Your task to perform on an android device: change alarm snooze length Image 0: 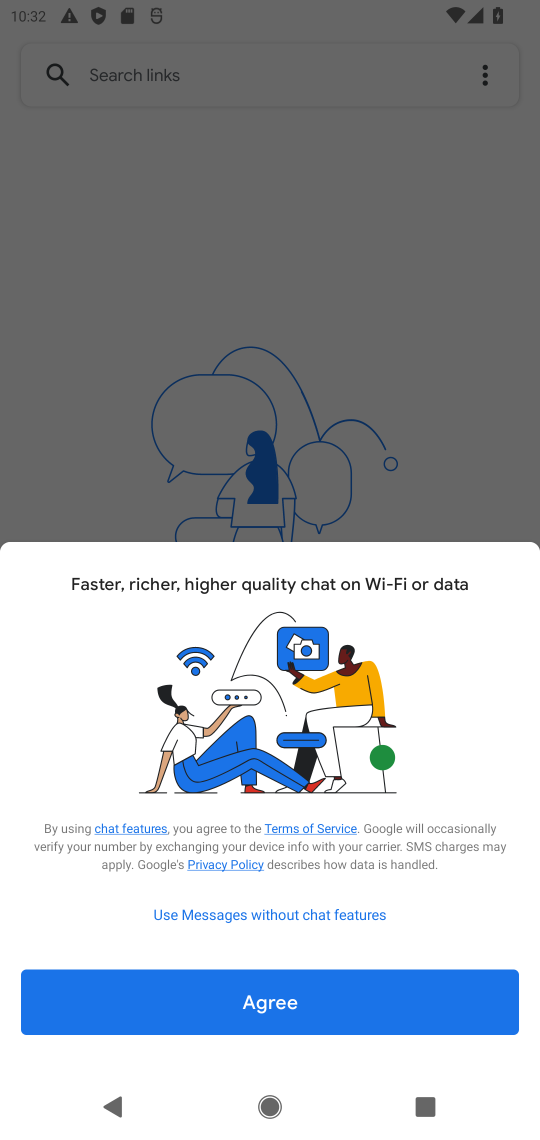
Step 0: press back button
Your task to perform on an android device: change alarm snooze length Image 1: 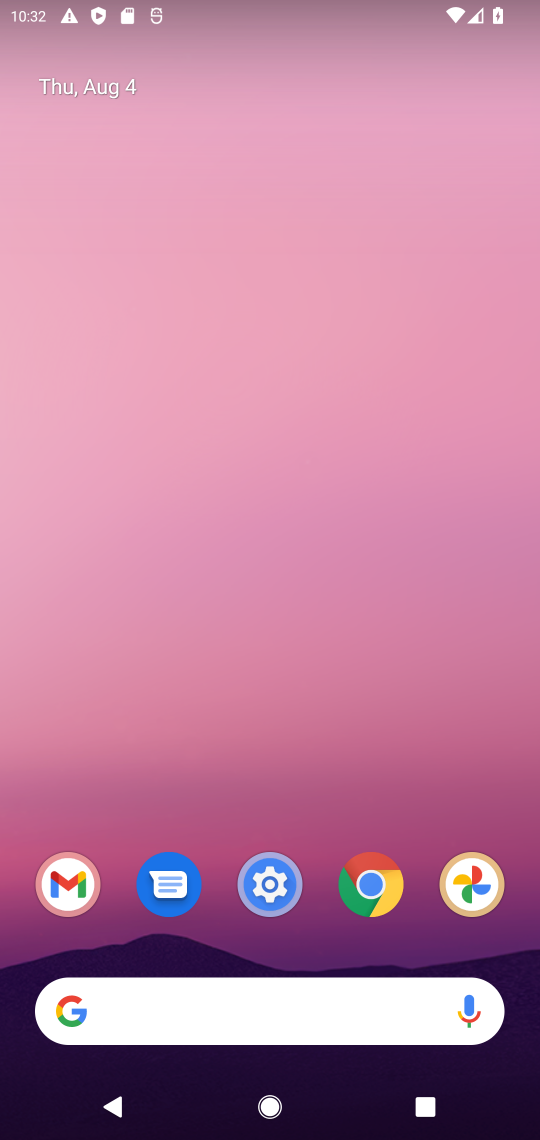
Step 1: drag from (297, 994) to (363, 90)
Your task to perform on an android device: change alarm snooze length Image 2: 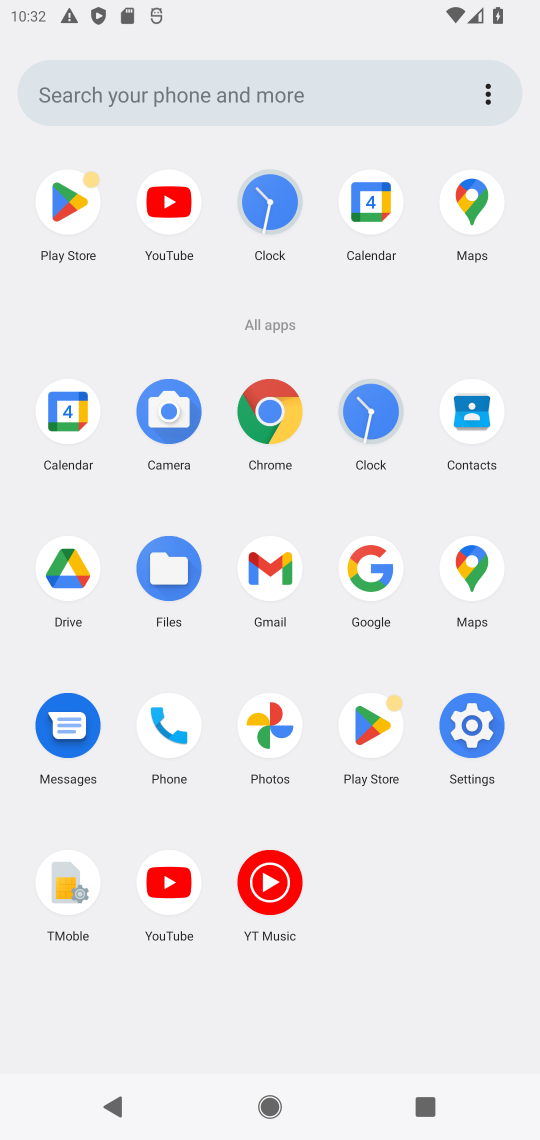
Step 2: click (373, 411)
Your task to perform on an android device: change alarm snooze length Image 3: 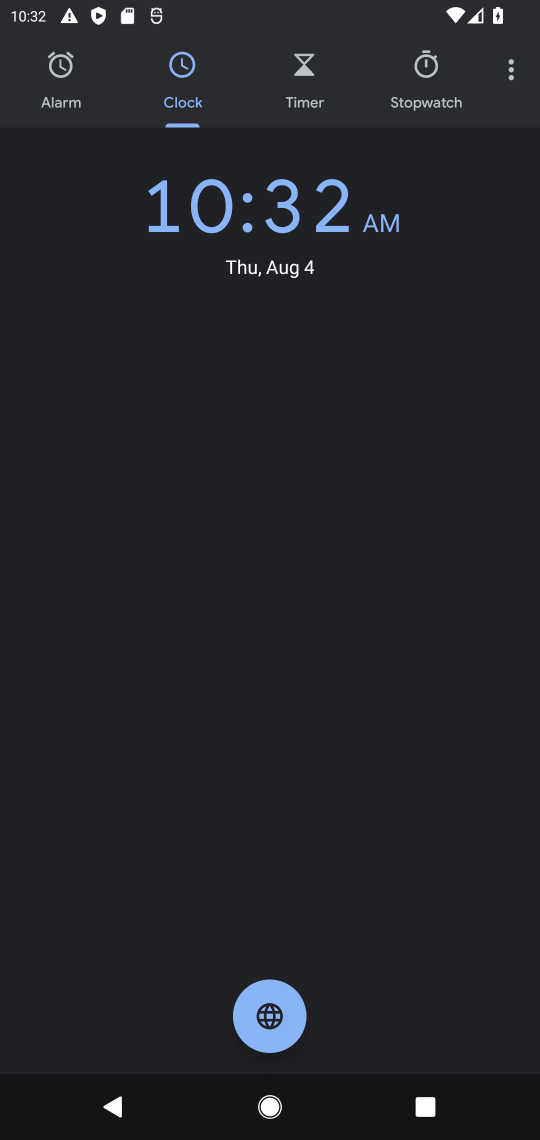
Step 3: click (422, 411)
Your task to perform on an android device: change alarm snooze length Image 4: 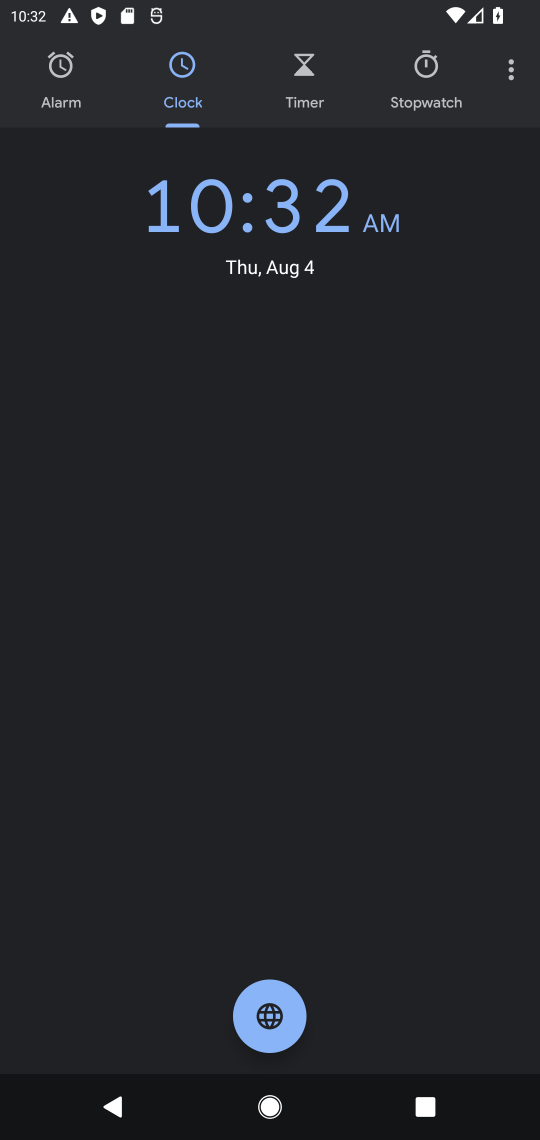
Step 4: click (73, 88)
Your task to perform on an android device: change alarm snooze length Image 5: 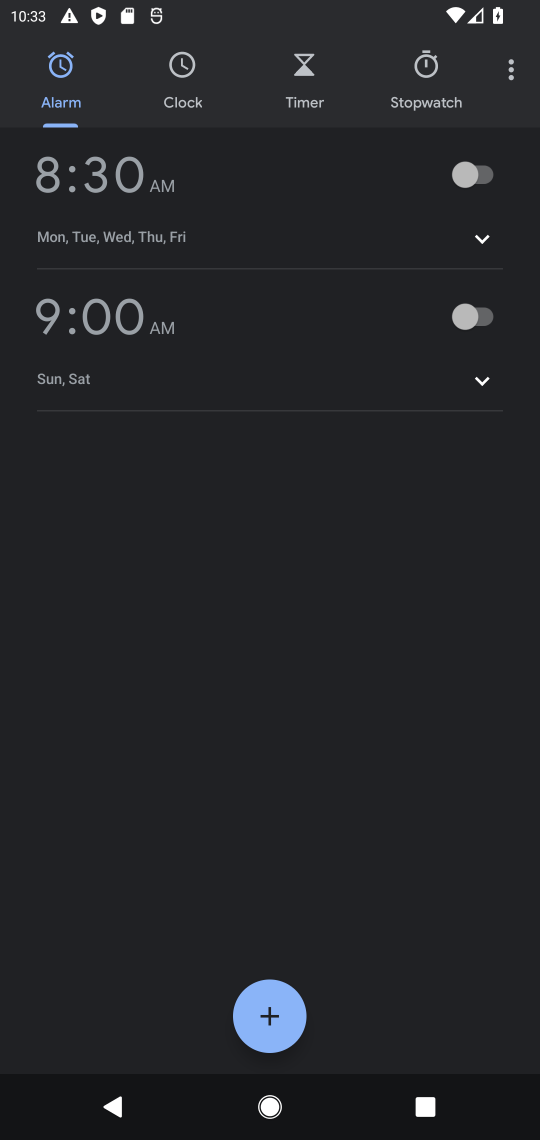
Step 5: click (499, 69)
Your task to perform on an android device: change alarm snooze length Image 6: 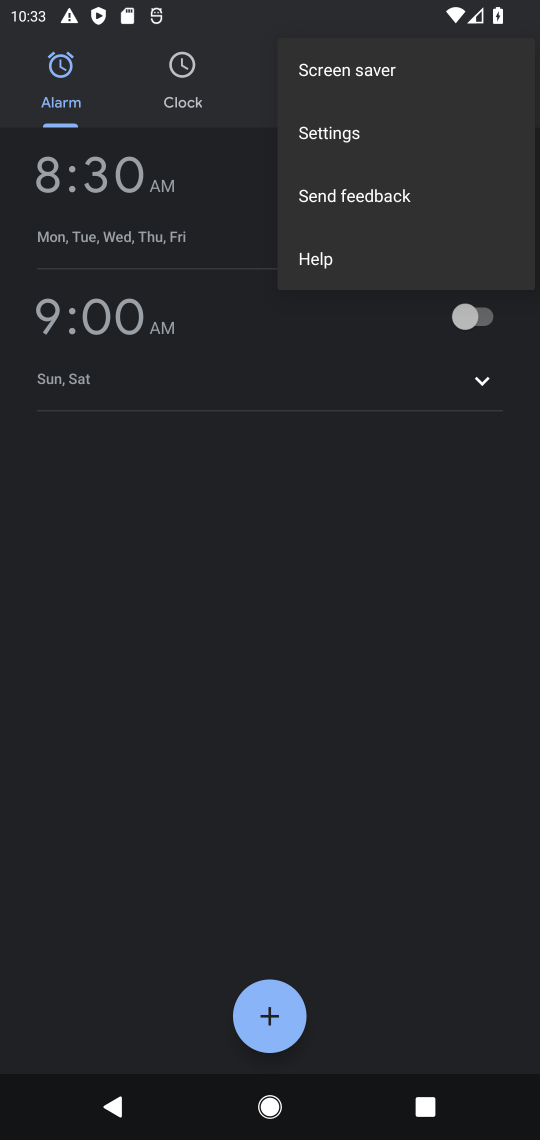
Step 6: click (335, 138)
Your task to perform on an android device: change alarm snooze length Image 7: 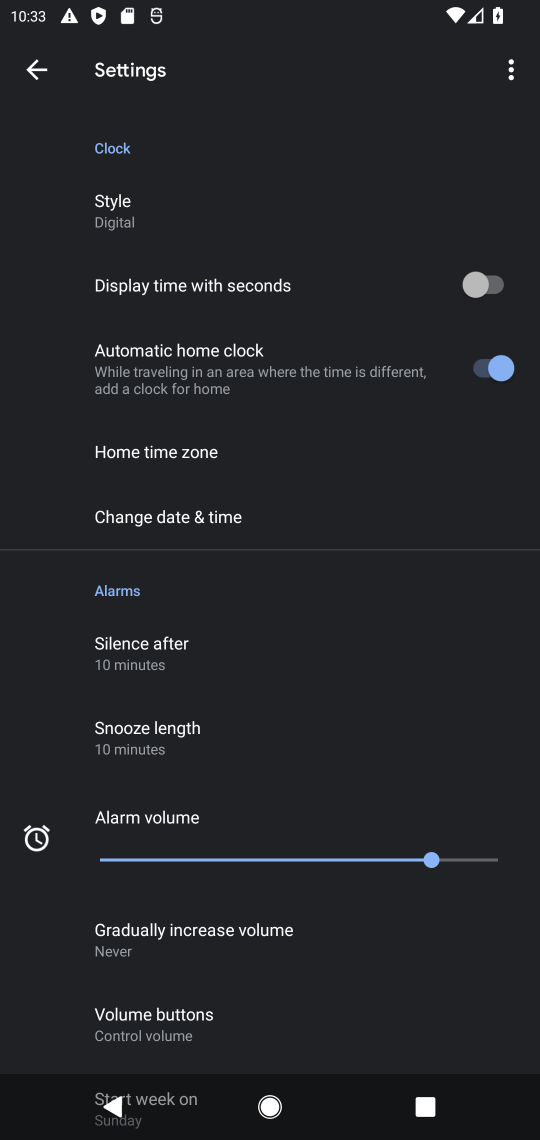
Step 7: click (200, 721)
Your task to perform on an android device: change alarm snooze length Image 8: 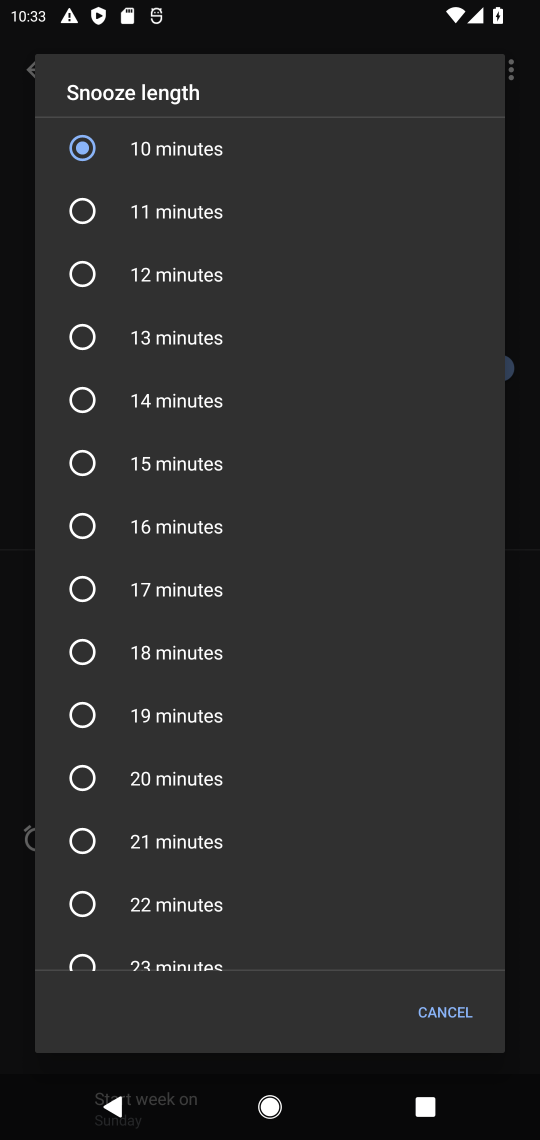
Step 8: click (143, 649)
Your task to perform on an android device: change alarm snooze length Image 9: 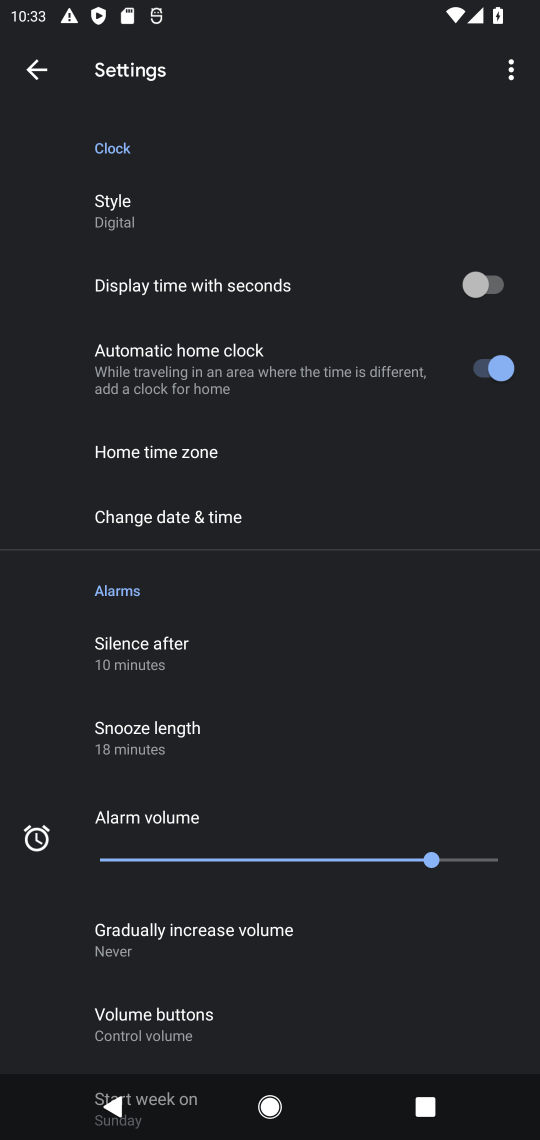
Step 9: task complete